Your task to perform on an android device: find photos in the google photos app Image 0: 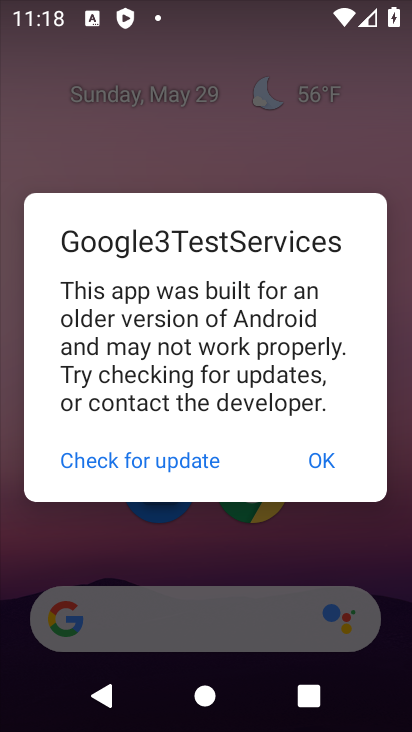
Step 0: press home button
Your task to perform on an android device: find photos in the google photos app Image 1: 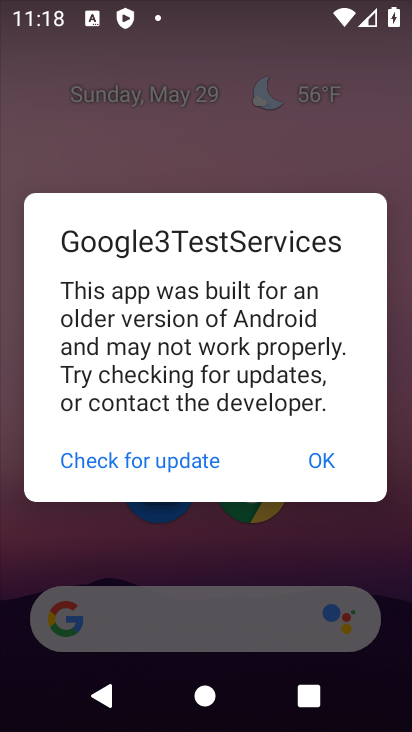
Step 1: press home button
Your task to perform on an android device: find photos in the google photos app Image 2: 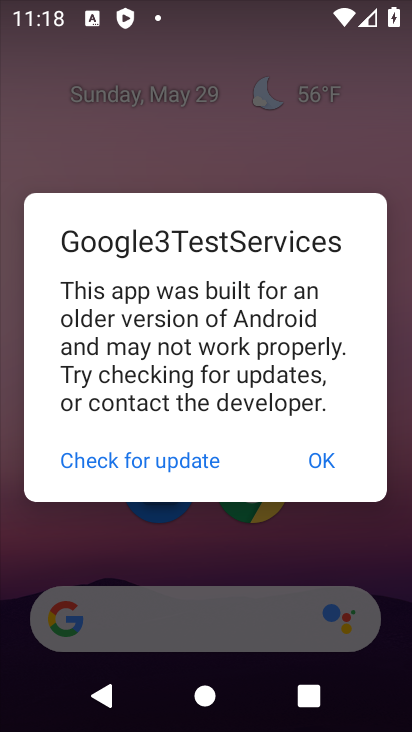
Step 2: click (329, 459)
Your task to perform on an android device: find photos in the google photos app Image 3: 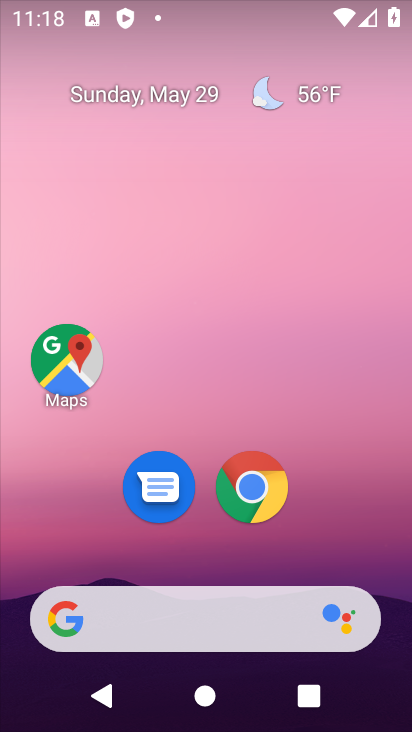
Step 3: drag from (225, 627) to (398, 152)
Your task to perform on an android device: find photos in the google photos app Image 4: 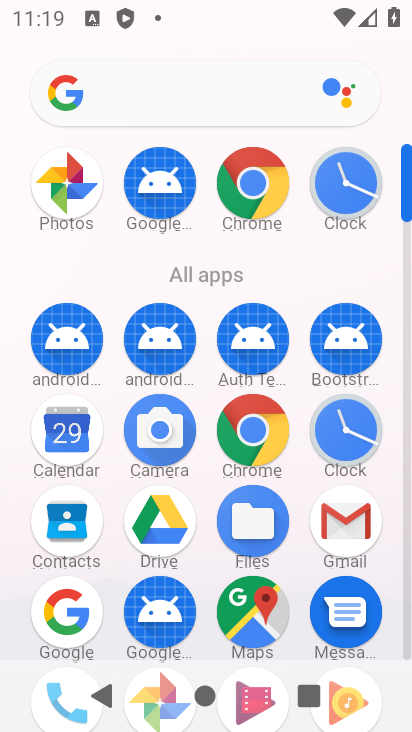
Step 4: drag from (146, 563) to (219, 312)
Your task to perform on an android device: find photos in the google photos app Image 5: 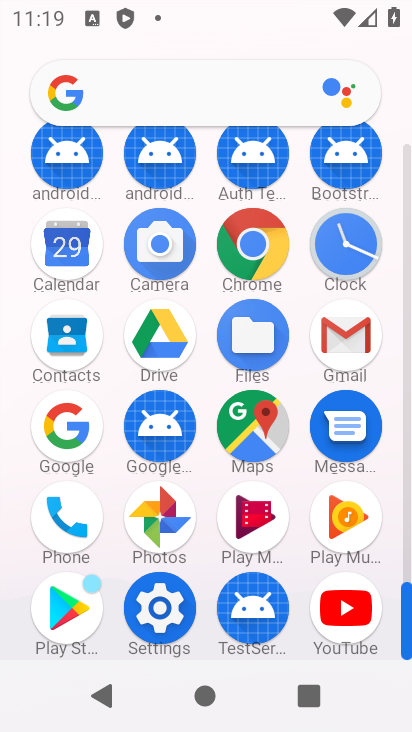
Step 5: click (175, 525)
Your task to perform on an android device: find photos in the google photos app Image 6: 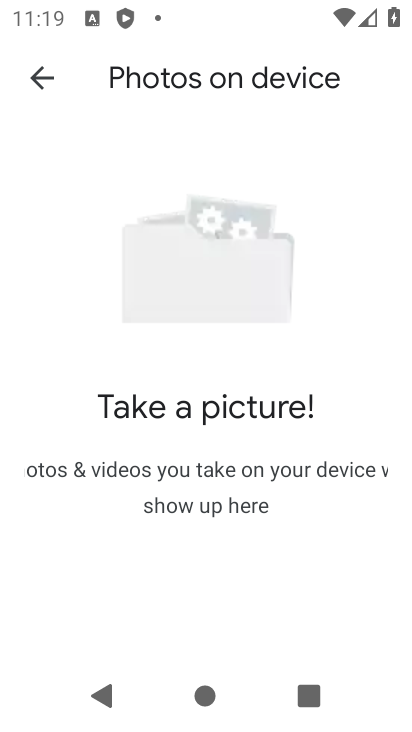
Step 6: click (43, 79)
Your task to perform on an android device: find photos in the google photos app Image 7: 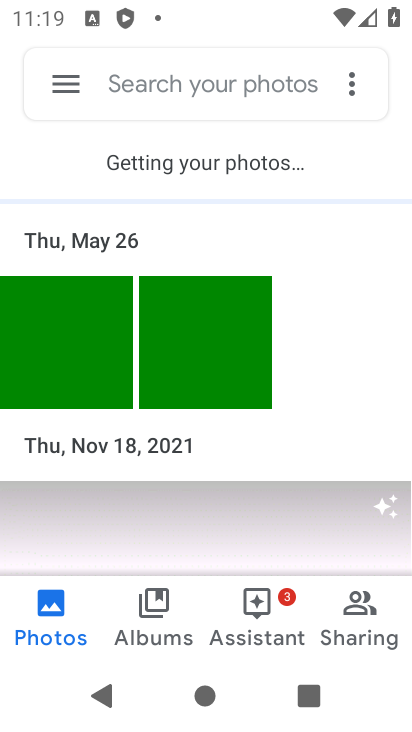
Step 7: task complete